Your task to perform on an android device: delete browsing data in the chrome app Image 0: 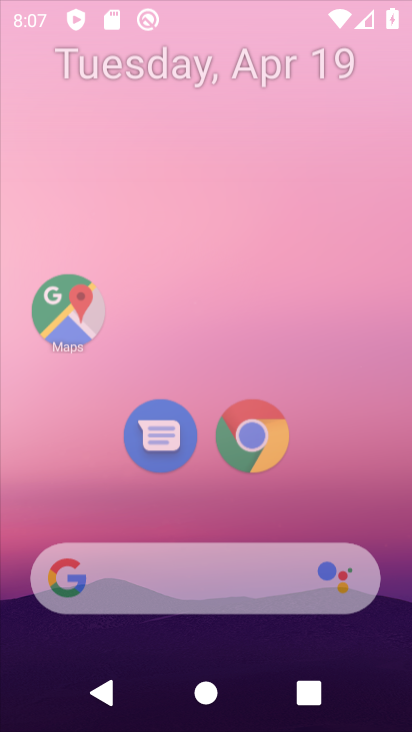
Step 0: click (402, 207)
Your task to perform on an android device: delete browsing data in the chrome app Image 1: 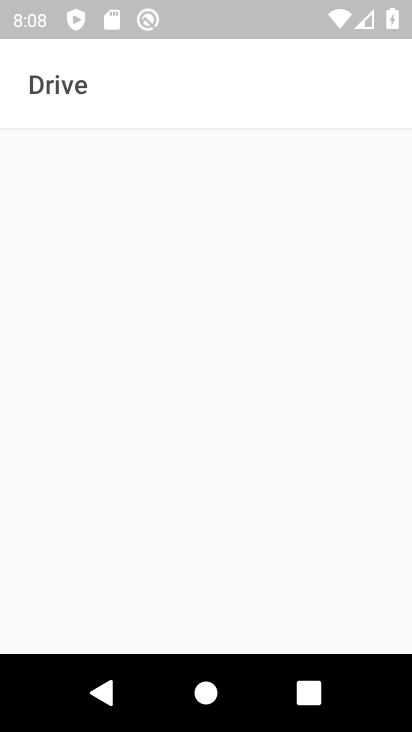
Step 1: click (125, 694)
Your task to perform on an android device: delete browsing data in the chrome app Image 2: 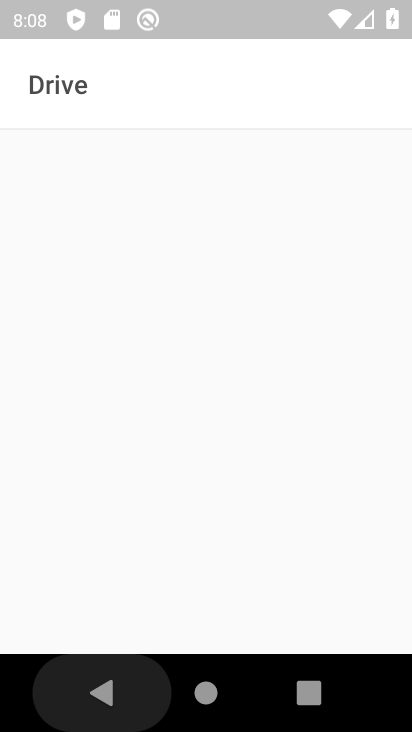
Step 2: click (125, 693)
Your task to perform on an android device: delete browsing data in the chrome app Image 3: 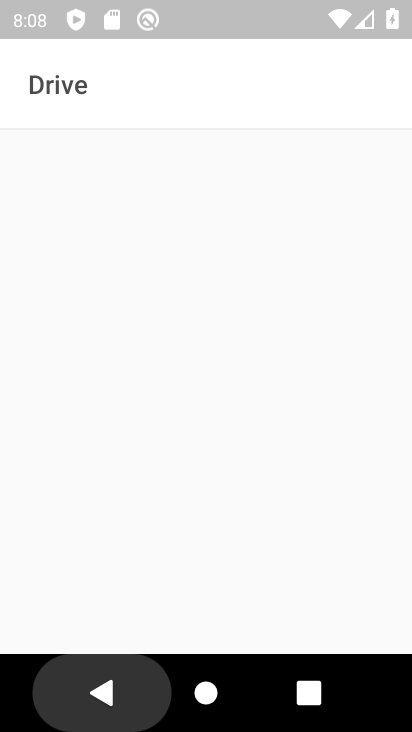
Step 3: click (125, 693)
Your task to perform on an android device: delete browsing data in the chrome app Image 4: 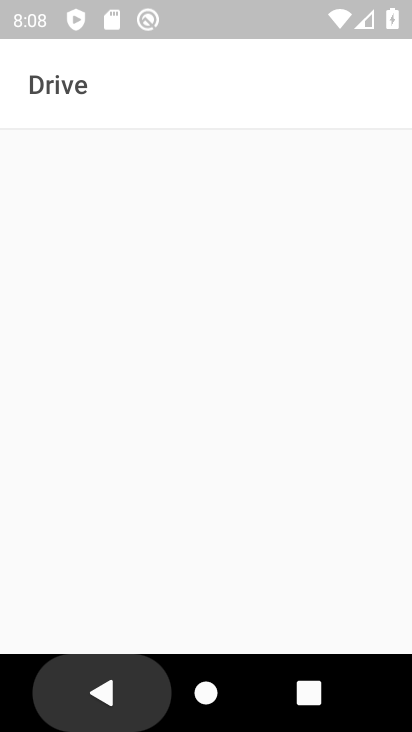
Step 4: press back button
Your task to perform on an android device: delete browsing data in the chrome app Image 5: 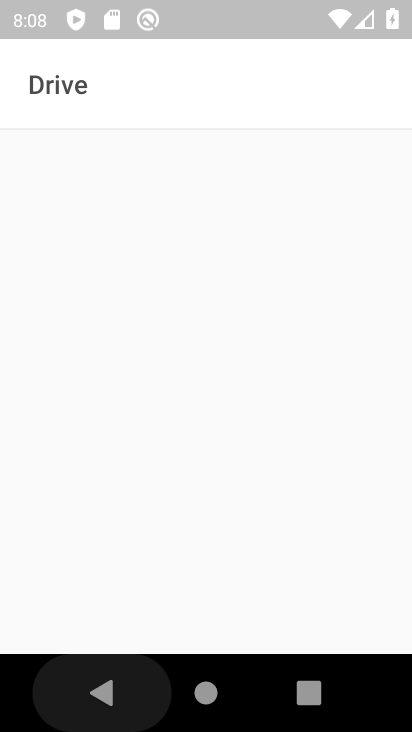
Step 5: press home button
Your task to perform on an android device: delete browsing data in the chrome app Image 6: 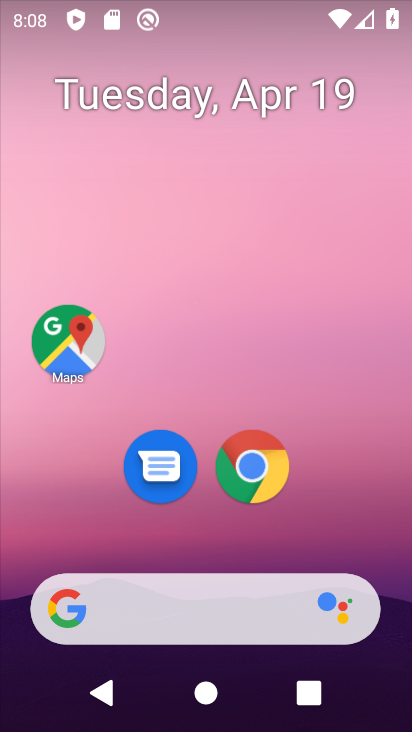
Step 6: click (237, 465)
Your task to perform on an android device: delete browsing data in the chrome app Image 7: 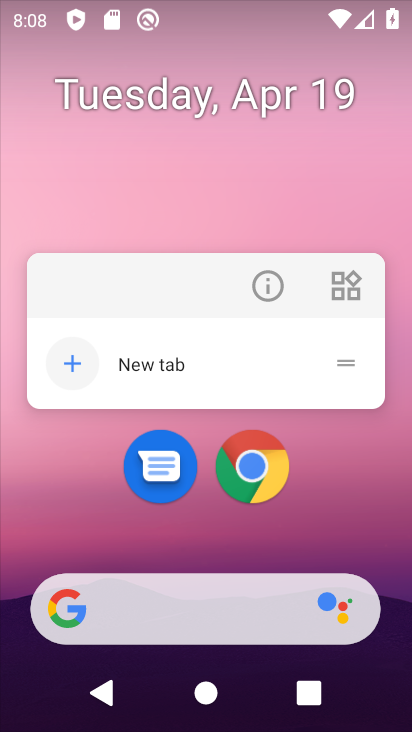
Step 7: click (237, 464)
Your task to perform on an android device: delete browsing data in the chrome app Image 8: 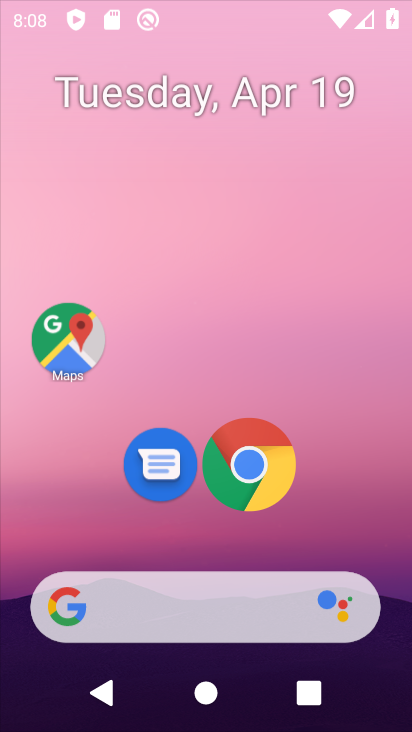
Step 8: click (237, 464)
Your task to perform on an android device: delete browsing data in the chrome app Image 9: 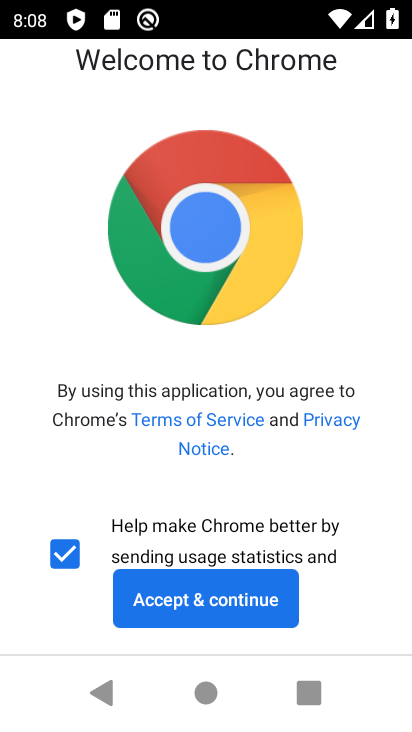
Step 9: click (212, 611)
Your task to perform on an android device: delete browsing data in the chrome app Image 10: 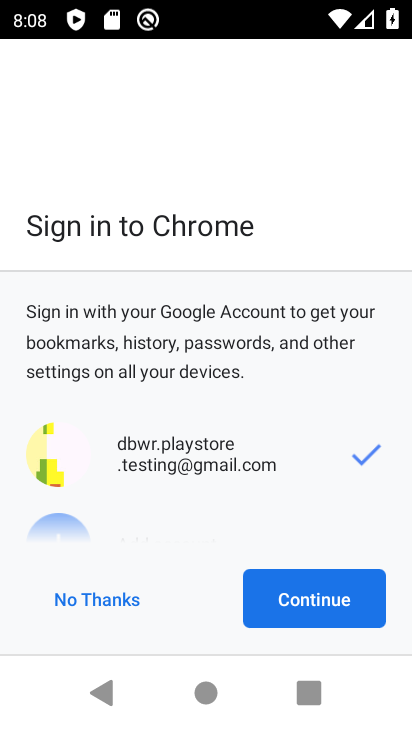
Step 10: click (107, 581)
Your task to perform on an android device: delete browsing data in the chrome app Image 11: 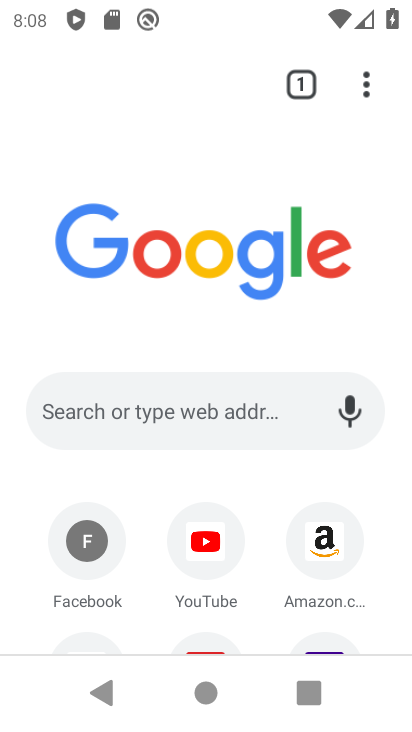
Step 11: task complete